Your task to perform on an android device: turn on wifi Image 0: 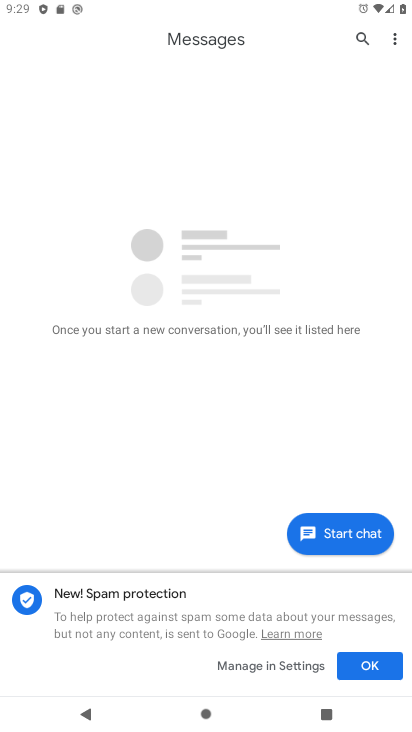
Step 0: press back button
Your task to perform on an android device: turn on wifi Image 1: 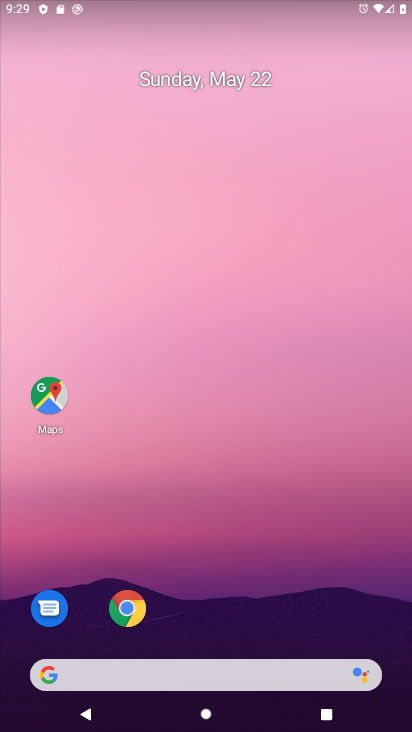
Step 1: drag from (243, 568) to (241, 0)
Your task to perform on an android device: turn on wifi Image 2: 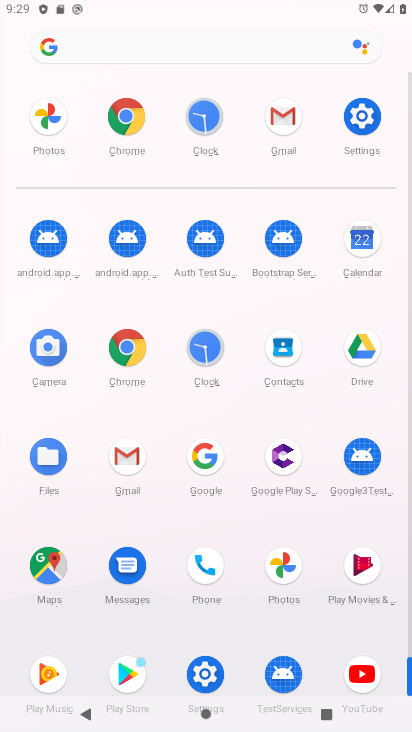
Step 2: click (364, 115)
Your task to perform on an android device: turn on wifi Image 3: 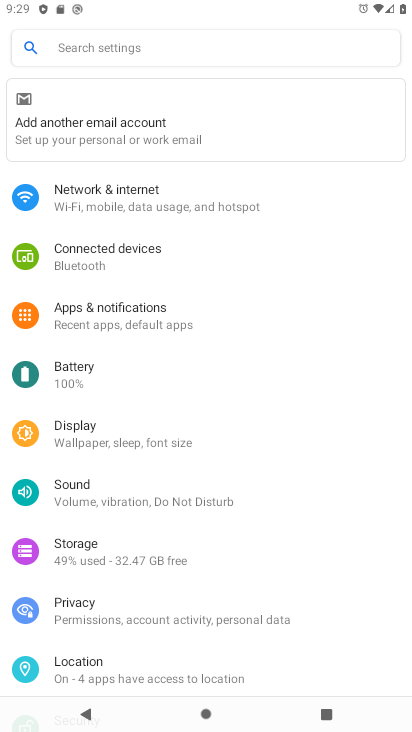
Step 3: click (134, 187)
Your task to perform on an android device: turn on wifi Image 4: 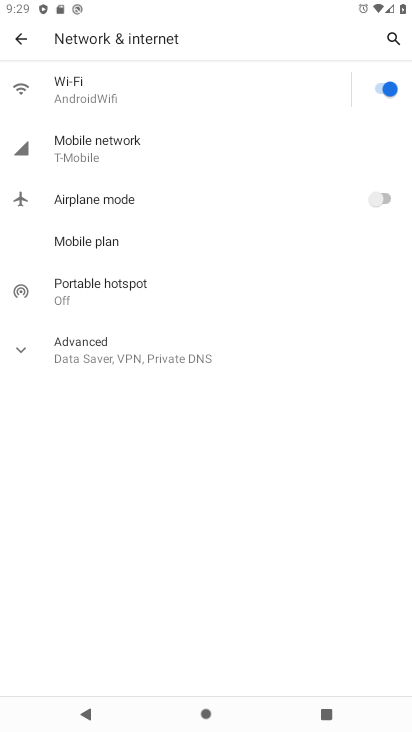
Step 4: click (104, 95)
Your task to perform on an android device: turn on wifi Image 5: 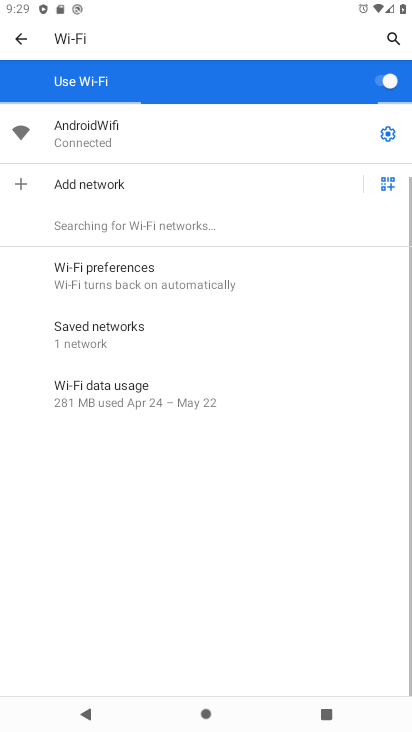
Step 5: click (23, 42)
Your task to perform on an android device: turn on wifi Image 6: 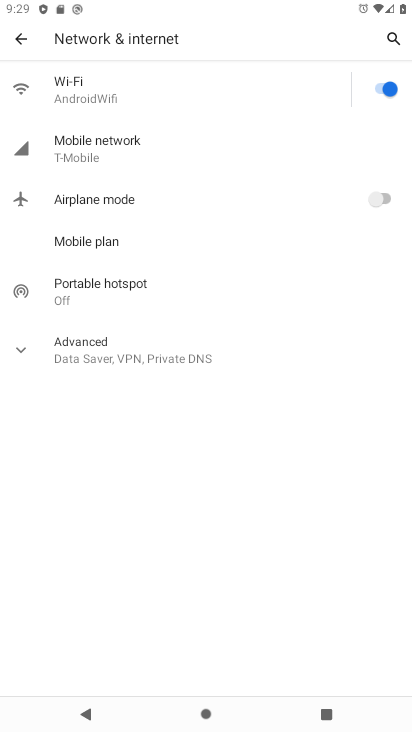
Step 6: click (24, 349)
Your task to perform on an android device: turn on wifi Image 7: 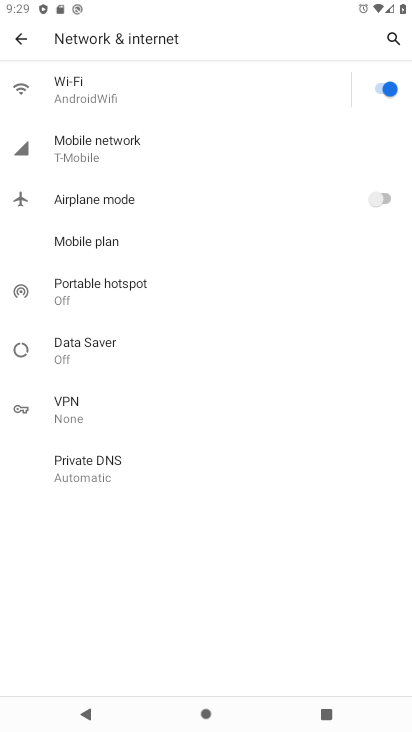
Step 7: task complete